Your task to perform on an android device: Open Youtube and go to the subscriptions tab Image 0: 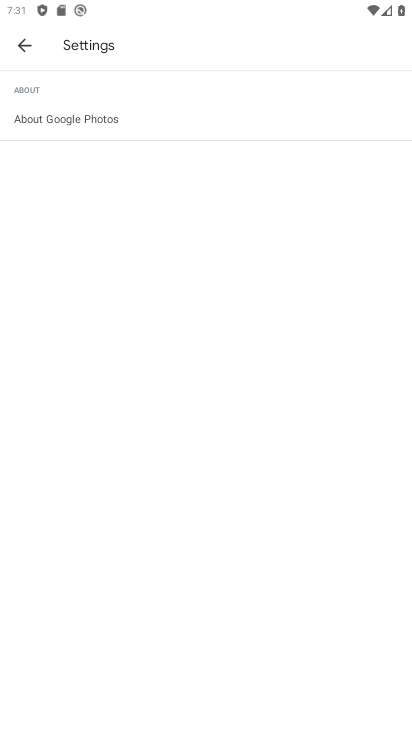
Step 0: press home button
Your task to perform on an android device: Open Youtube and go to the subscriptions tab Image 1: 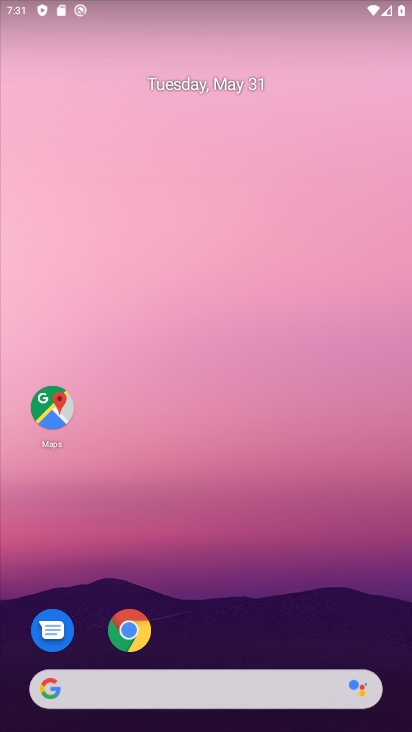
Step 1: drag from (268, 599) to (233, 159)
Your task to perform on an android device: Open Youtube and go to the subscriptions tab Image 2: 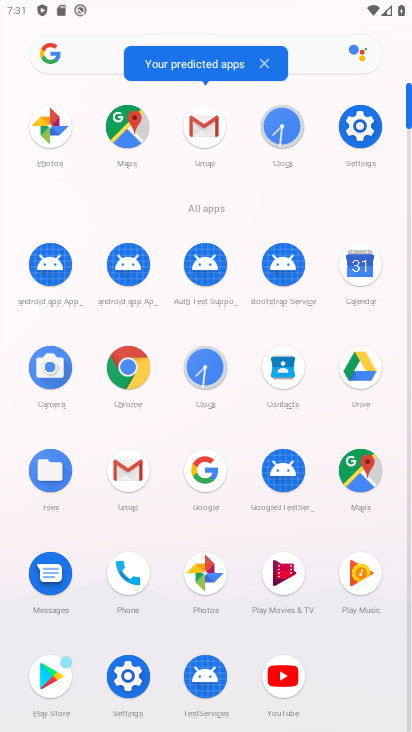
Step 2: click (276, 685)
Your task to perform on an android device: Open Youtube and go to the subscriptions tab Image 3: 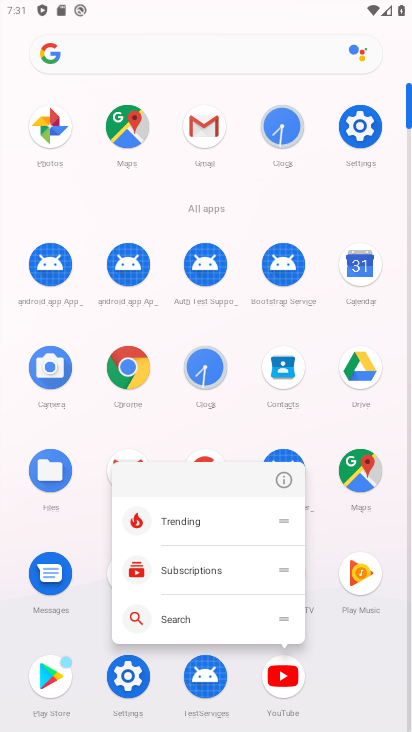
Step 3: click (279, 685)
Your task to perform on an android device: Open Youtube and go to the subscriptions tab Image 4: 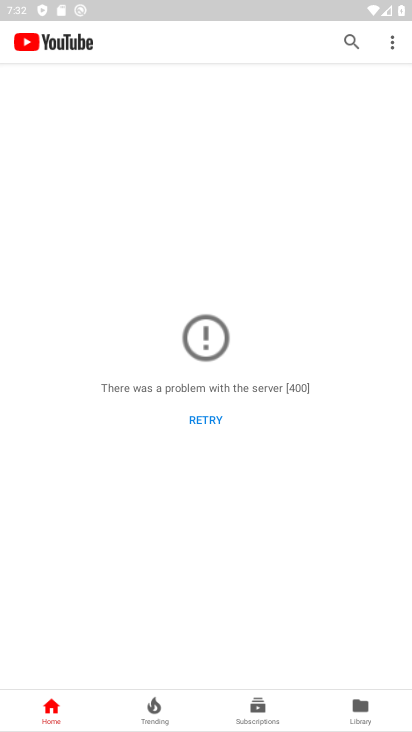
Step 4: click (252, 708)
Your task to perform on an android device: Open Youtube and go to the subscriptions tab Image 5: 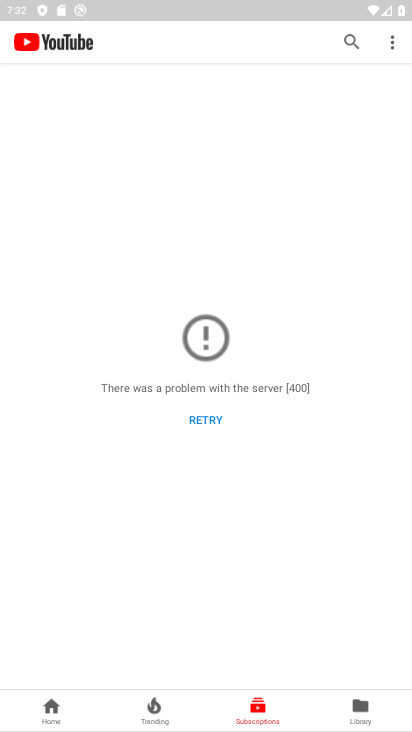
Step 5: task complete